Your task to perform on an android device: change text size in settings app Image 0: 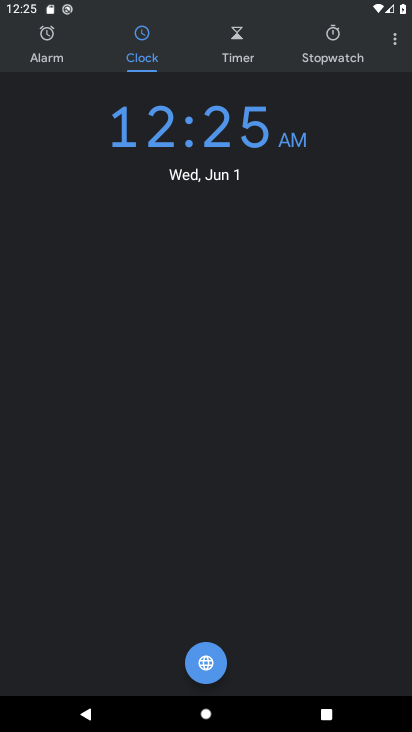
Step 0: press home button
Your task to perform on an android device: change text size in settings app Image 1: 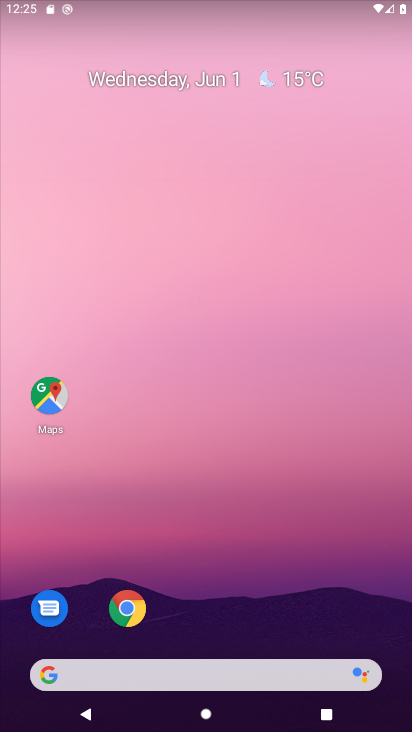
Step 1: drag from (242, 631) to (277, 33)
Your task to perform on an android device: change text size in settings app Image 2: 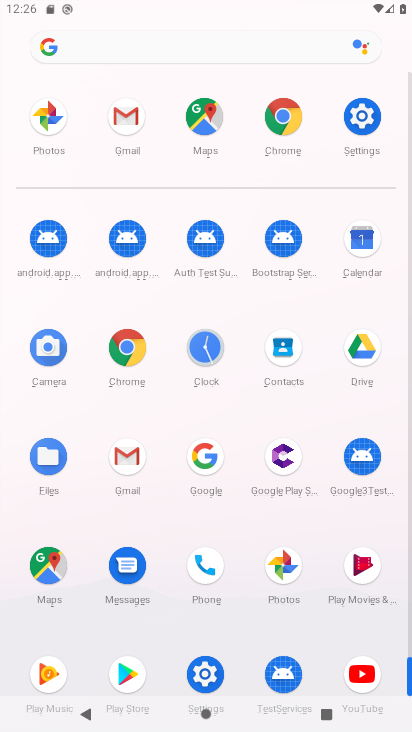
Step 2: click (359, 138)
Your task to perform on an android device: change text size in settings app Image 3: 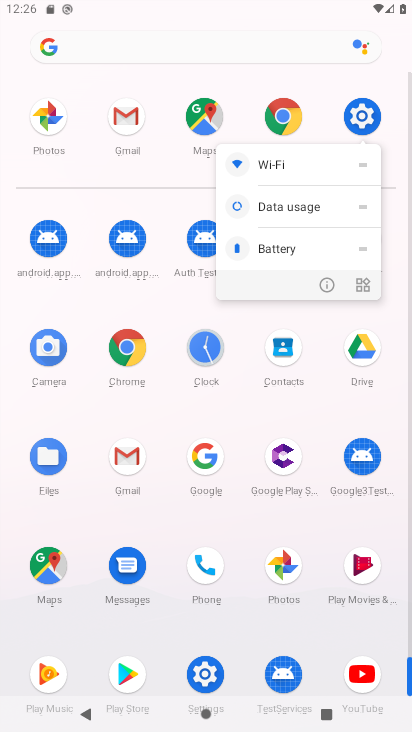
Step 3: click (367, 123)
Your task to perform on an android device: change text size in settings app Image 4: 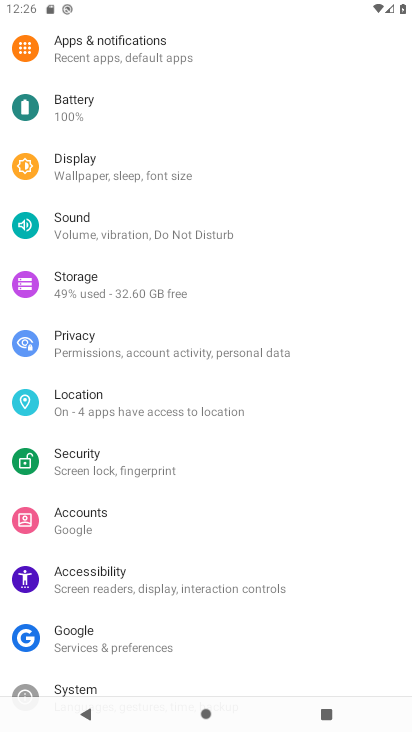
Step 4: drag from (144, 169) to (131, 595)
Your task to perform on an android device: change text size in settings app Image 5: 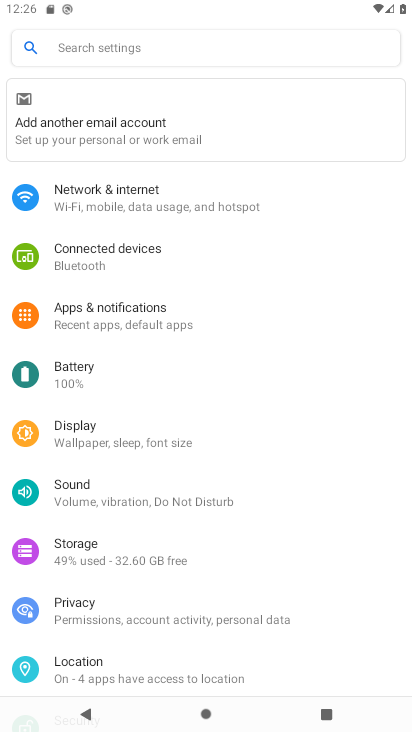
Step 5: click (138, 446)
Your task to perform on an android device: change text size in settings app Image 6: 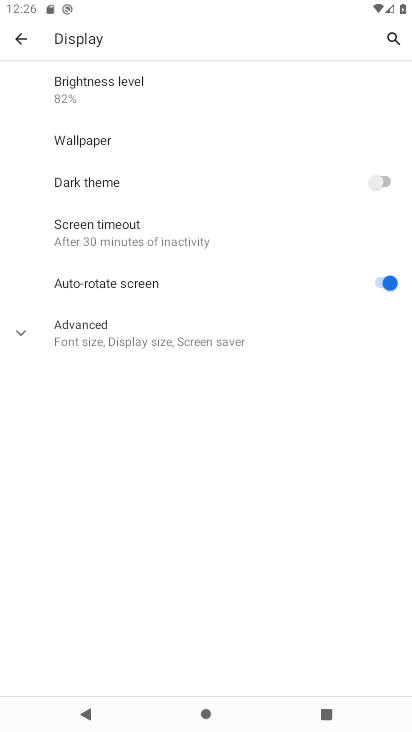
Step 6: click (107, 330)
Your task to perform on an android device: change text size in settings app Image 7: 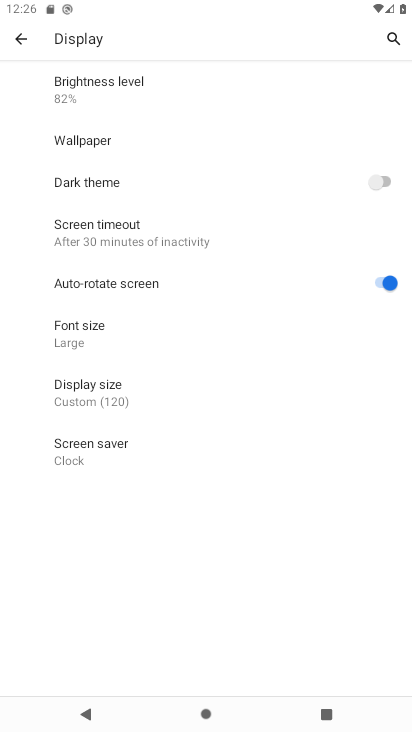
Step 7: click (88, 331)
Your task to perform on an android device: change text size in settings app Image 8: 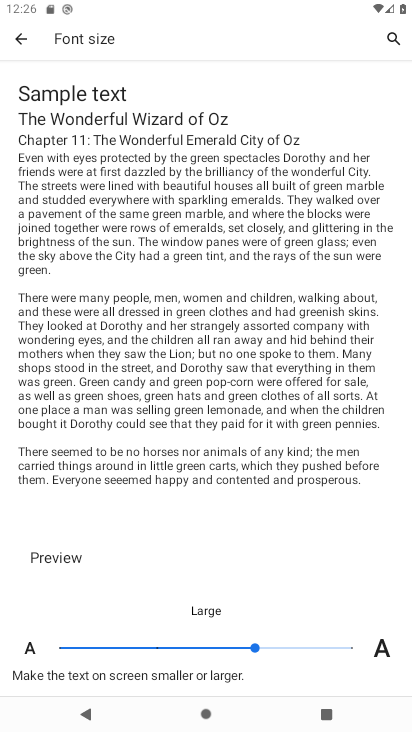
Step 8: click (136, 648)
Your task to perform on an android device: change text size in settings app Image 9: 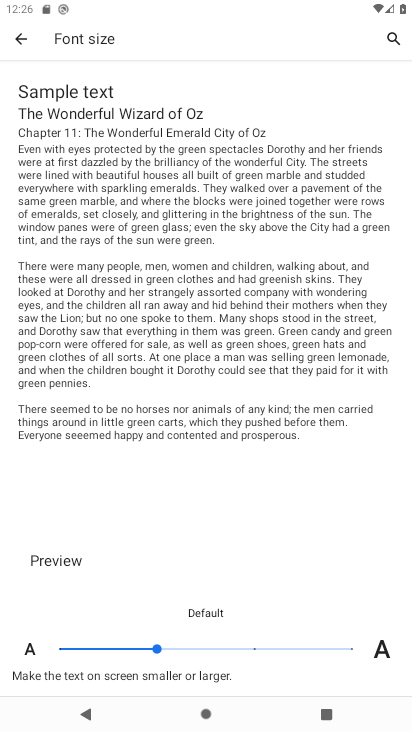
Step 9: task complete